Your task to perform on an android device: Play the last video I watched on Youtube Image 0: 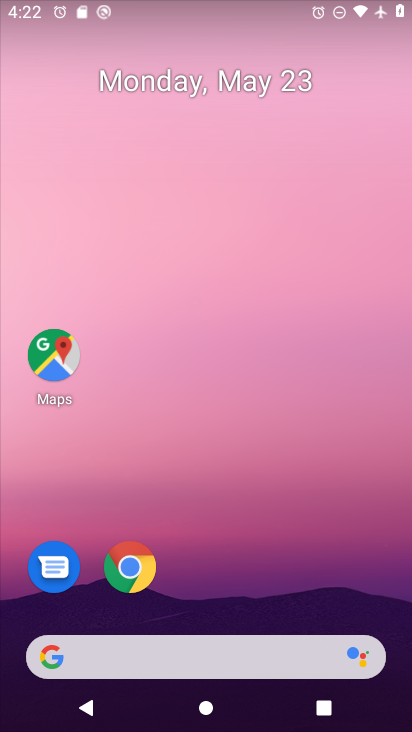
Step 0: drag from (350, 595) to (335, 72)
Your task to perform on an android device: Play the last video I watched on Youtube Image 1: 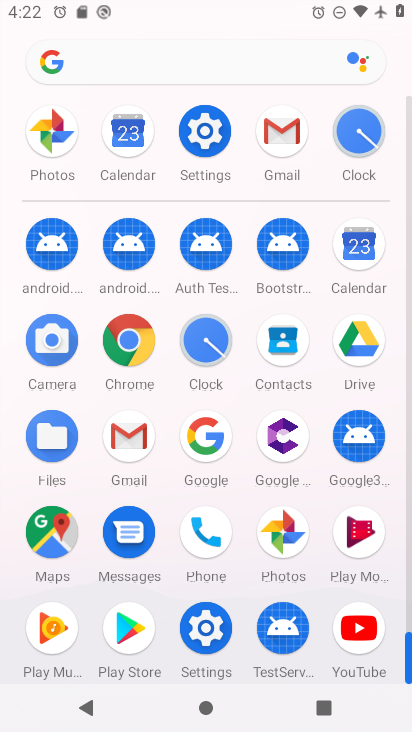
Step 1: click (353, 623)
Your task to perform on an android device: Play the last video I watched on Youtube Image 2: 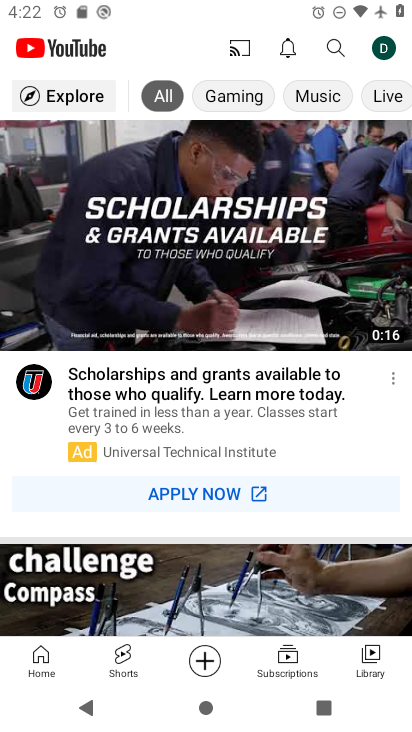
Step 2: click (361, 667)
Your task to perform on an android device: Play the last video I watched on Youtube Image 3: 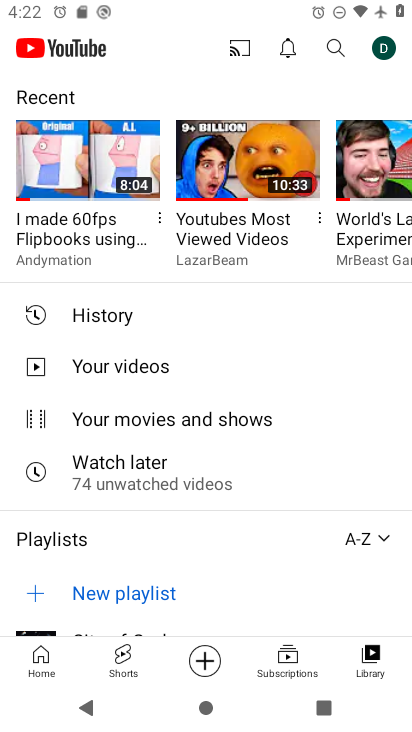
Step 3: click (90, 184)
Your task to perform on an android device: Play the last video I watched on Youtube Image 4: 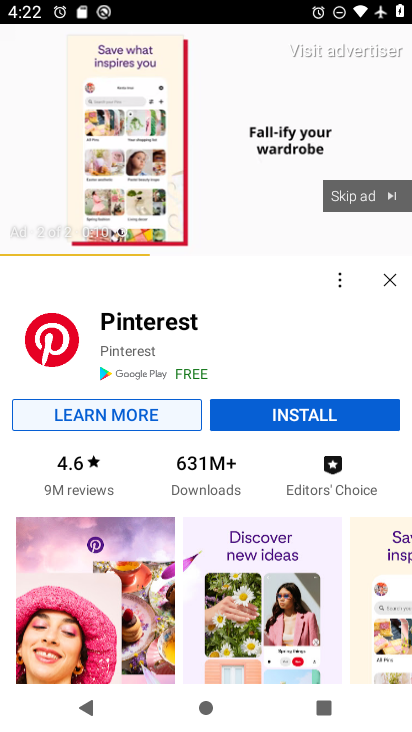
Step 4: click (371, 204)
Your task to perform on an android device: Play the last video I watched on Youtube Image 5: 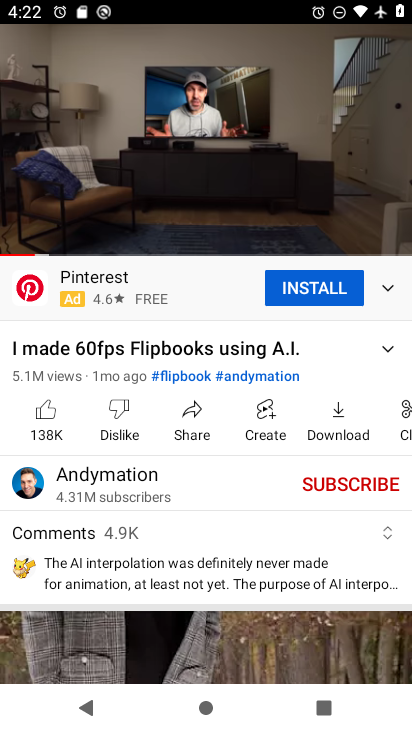
Step 5: click (196, 121)
Your task to perform on an android device: Play the last video I watched on Youtube Image 6: 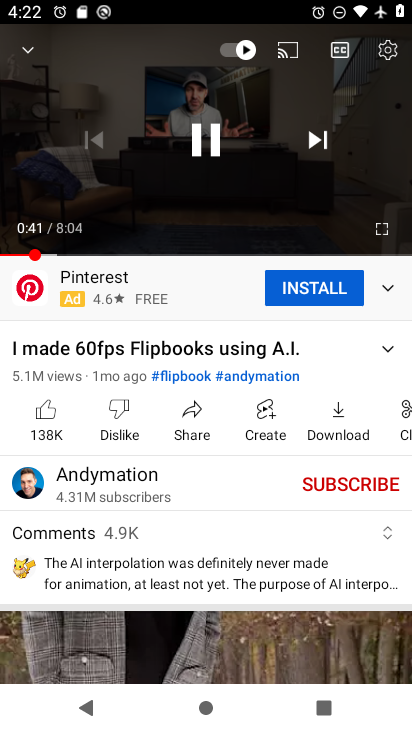
Step 6: click (196, 121)
Your task to perform on an android device: Play the last video I watched on Youtube Image 7: 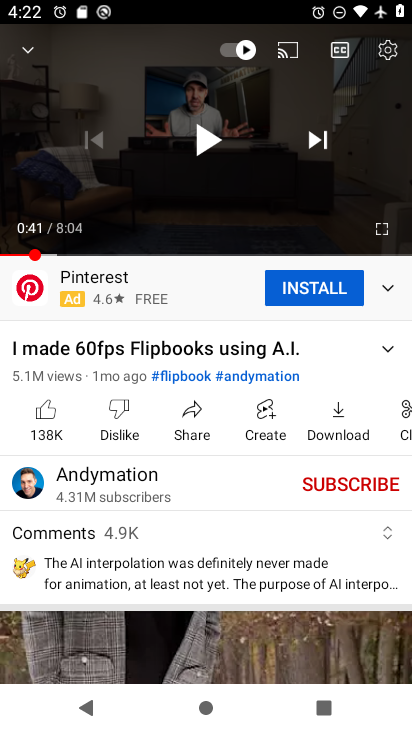
Step 7: task complete